Your task to perform on an android device: Open my contact list Image 0: 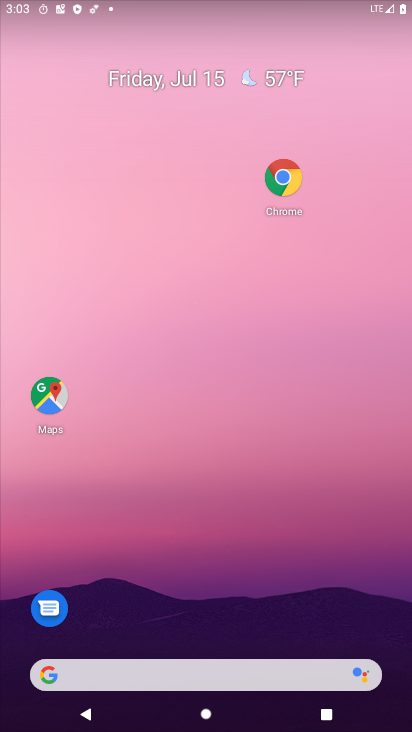
Step 0: drag from (259, 587) to (261, 161)
Your task to perform on an android device: Open my contact list Image 1: 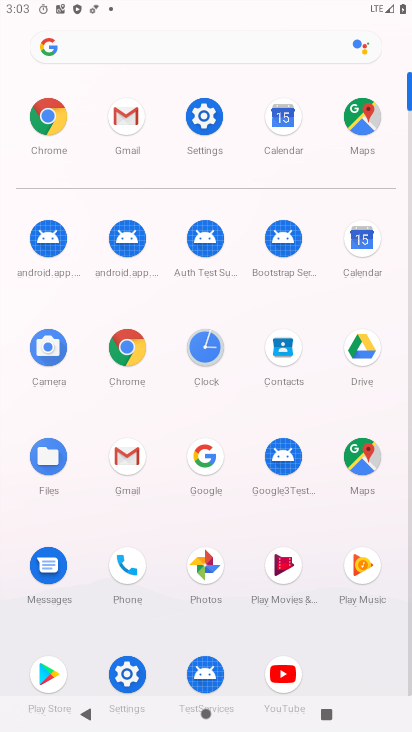
Step 1: click (288, 368)
Your task to perform on an android device: Open my contact list Image 2: 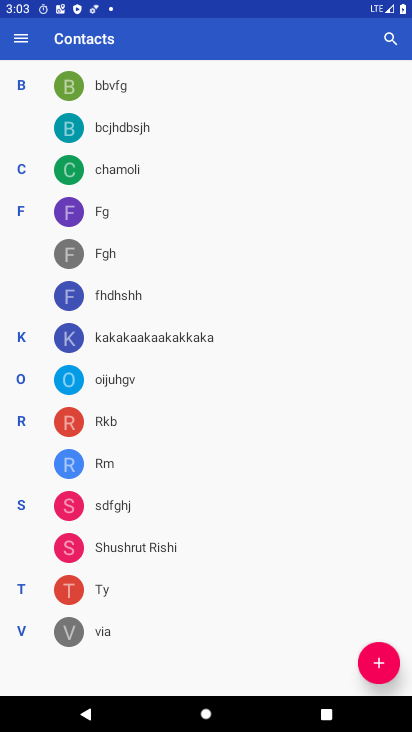
Step 2: task complete